Your task to perform on an android device: Check the news Image 0: 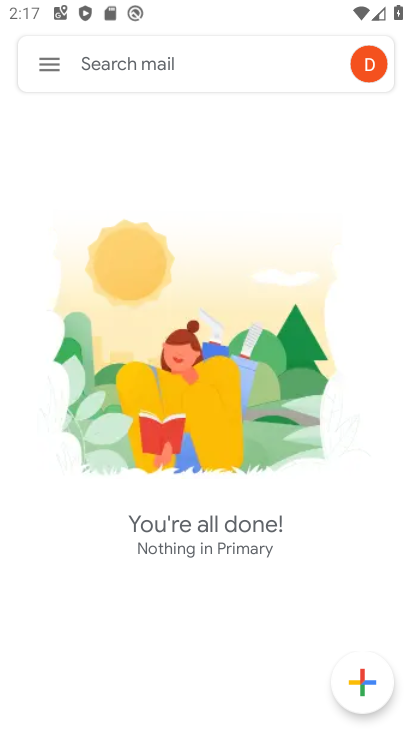
Step 0: press home button
Your task to perform on an android device: Check the news Image 1: 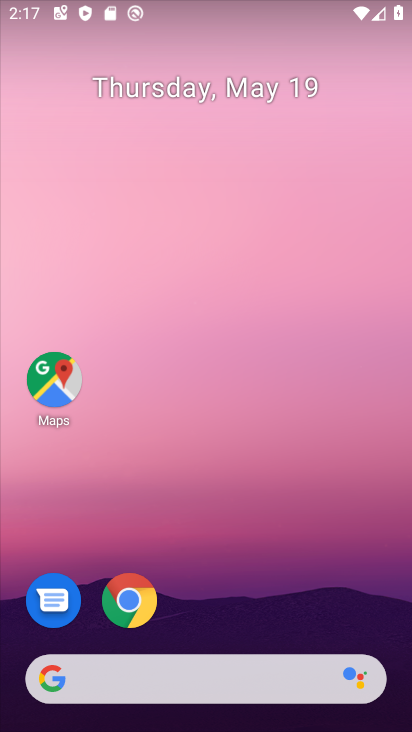
Step 1: drag from (108, 628) to (112, 222)
Your task to perform on an android device: Check the news Image 2: 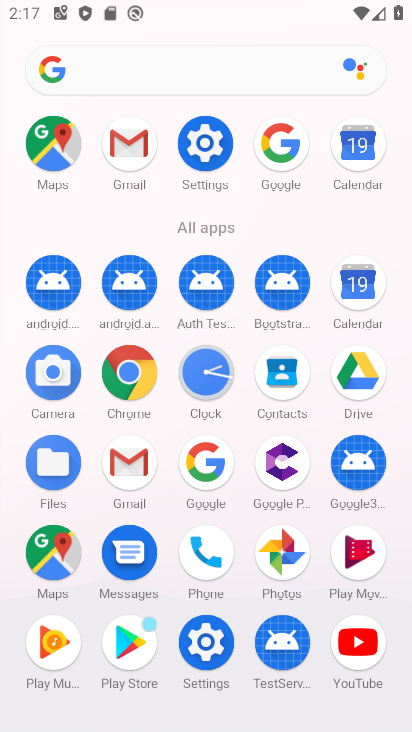
Step 2: click (207, 469)
Your task to perform on an android device: Check the news Image 3: 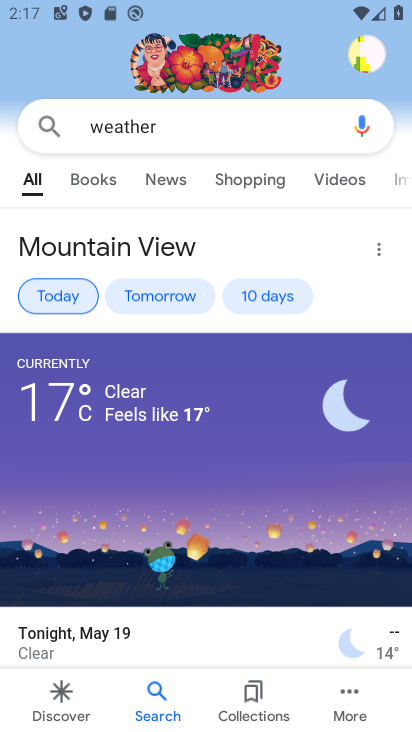
Step 3: click (179, 130)
Your task to perform on an android device: Check the news Image 4: 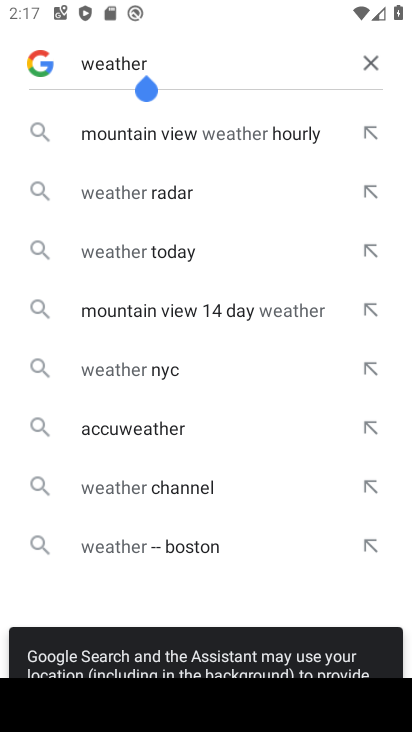
Step 4: click (367, 64)
Your task to perform on an android device: Check the news Image 5: 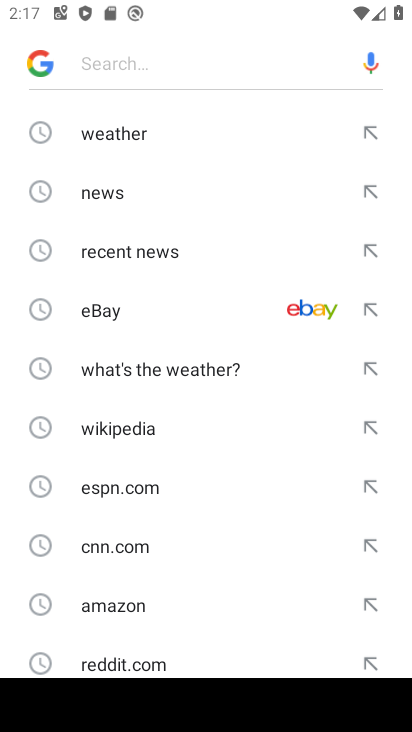
Step 5: drag from (133, 563) to (155, 213)
Your task to perform on an android device: Check the news Image 6: 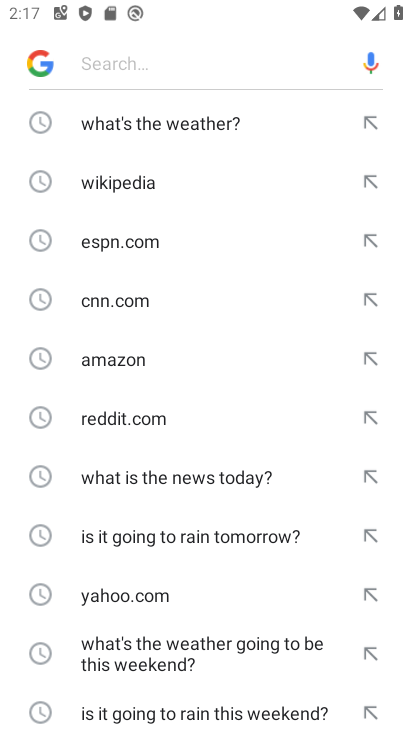
Step 6: drag from (151, 703) to (198, 316)
Your task to perform on an android device: Check the news Image 7: 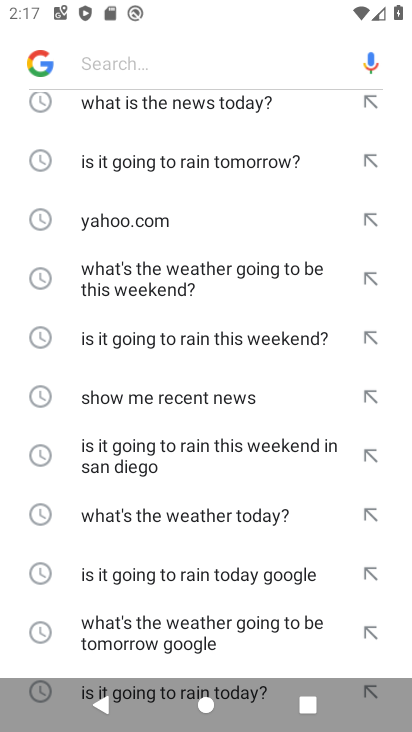
Step 7: drag from (160, 637) to (174, 350)
Your task to perform on an android device: Check the news Image 8: 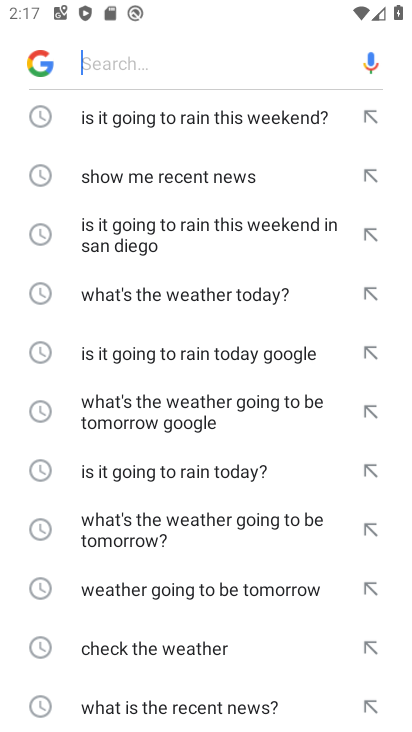
Step 8: click (131, 649)
Your task to perform on an android device: Check the news Image 9: 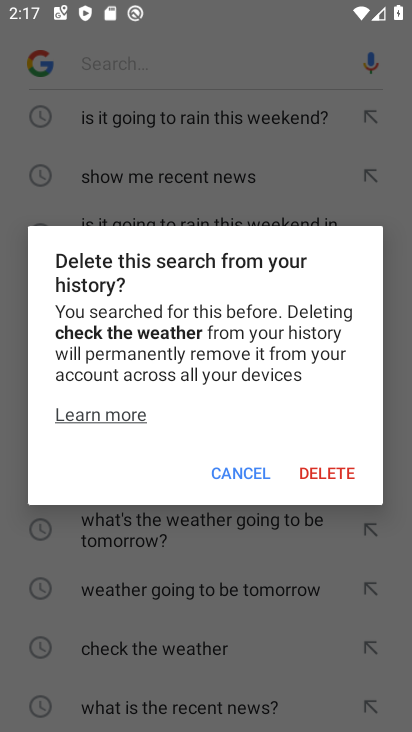
Step 9: click (244, 467)
Your task to perform on an android device: Check the news Image 10: 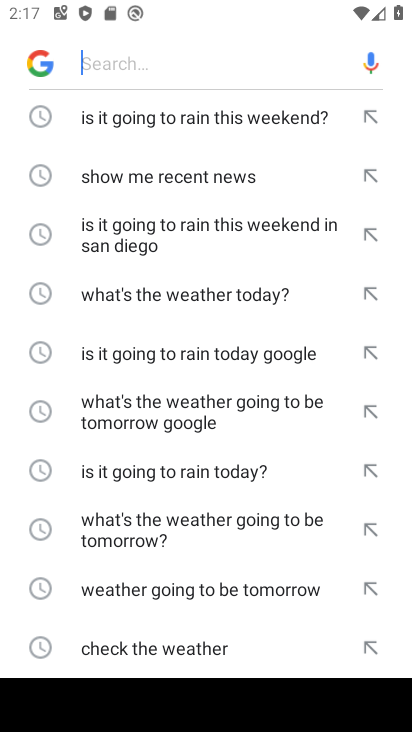
Step 10: drag from (179, 120) to (251, 581)
Your task to perform on an android device: Check the news Image 11: 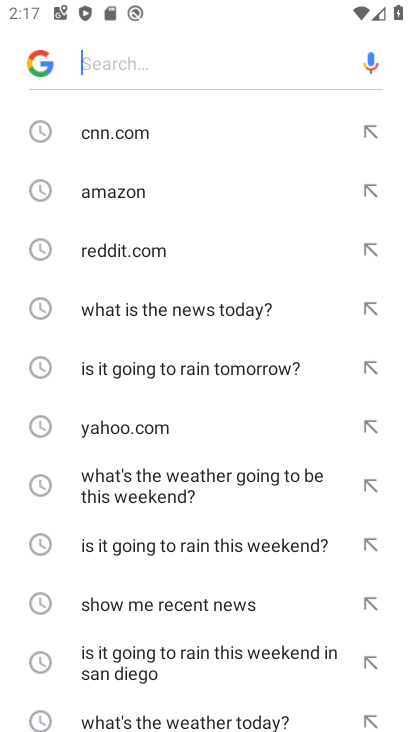
Step 11: drag from (139, 197) to (150, 582)
Your task to perform on an android device: Check the news Image 12: 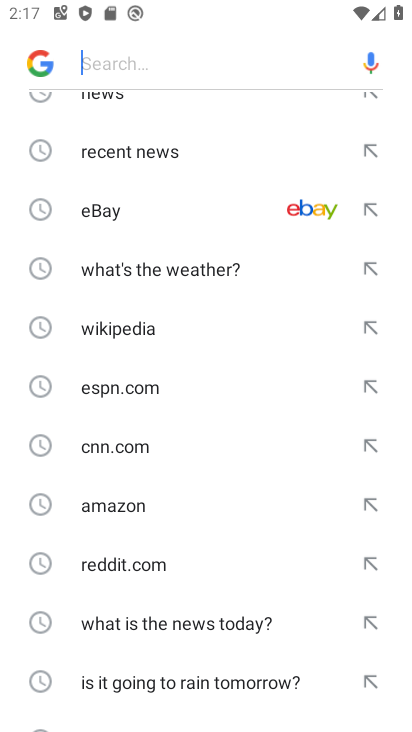
Step 12: drag from (112, 112) to (179, 568)
Your task to perform on an android device: Check the news Image 13: 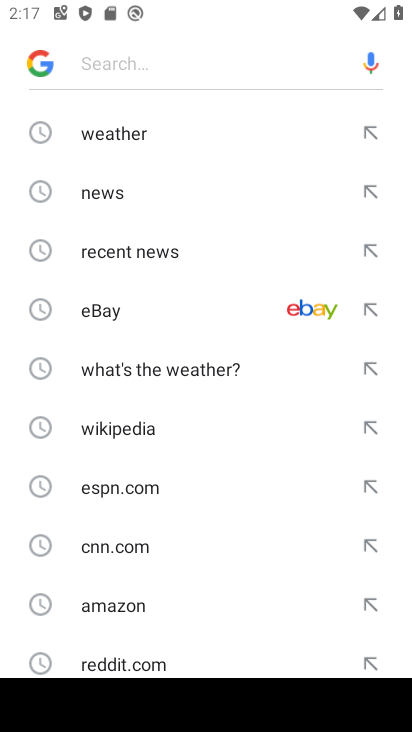
Step 13: click (108, 195)
Your task to perform on an android device: Check the news Image 14: 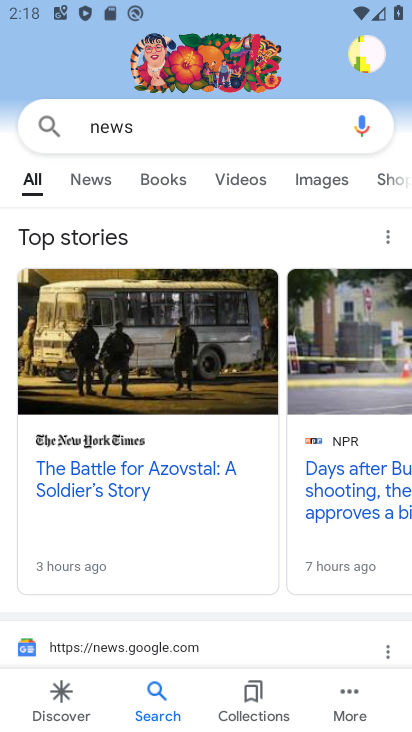
Step 14: task complete